Your task to perform on an android device: Do I have any events this weekend? Image 0: 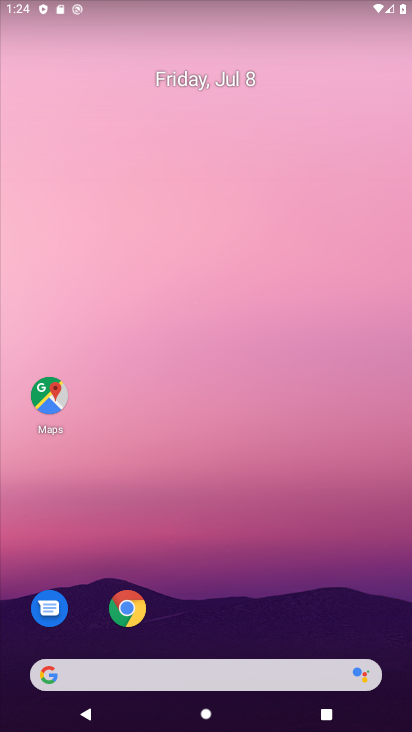
Step 0: click (39, 392)
Your task to perform on an android device: Do I have any events this weekend? Image 1: 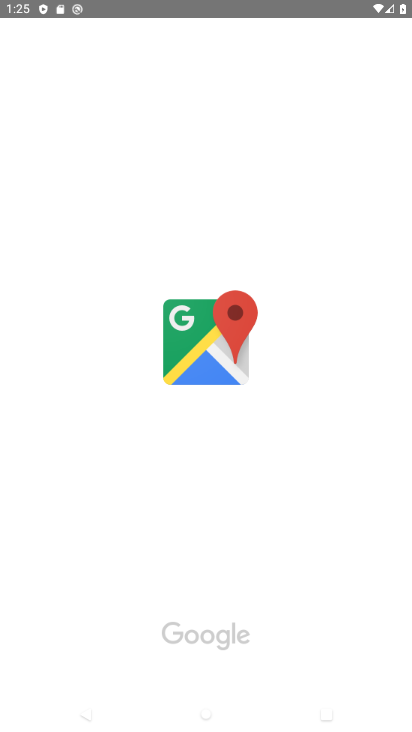
Step 1: press home button
Your task to perform on an android device: Do I have any events this weekend? Image 2: 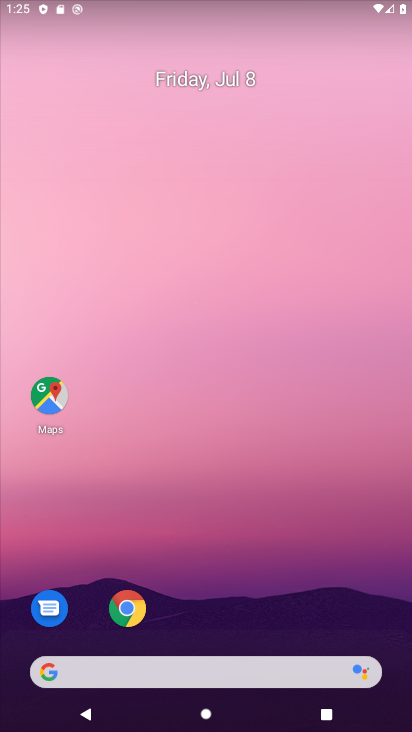
Step 2: click (212, 82)
Your task to perform on an android device: Do I have any events this weekend? Image 3: 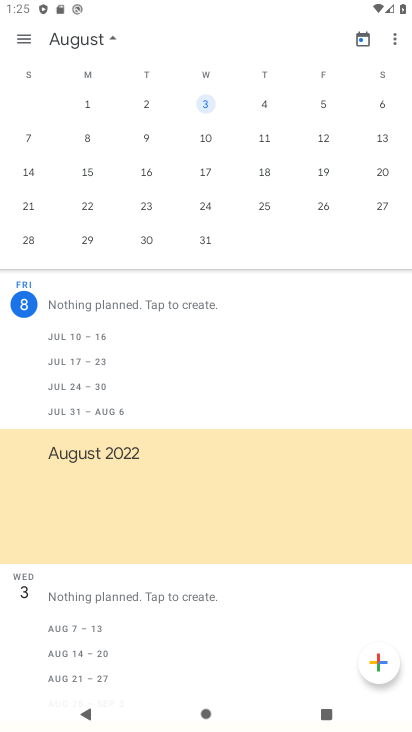
Step 3: drag from (23, 156) to (334, 228)
Your task to perform on an android device: Do I have any events this weekend? Image 4: 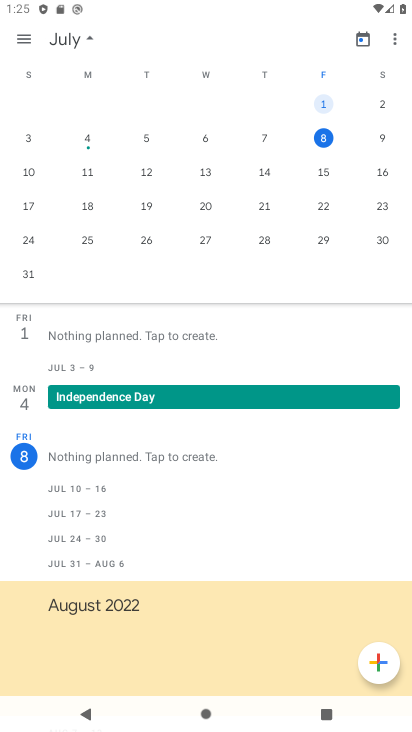
Step 4: click (385, 138)
Your task to perform on an android device: Do I have any events this weekend? Image 5: 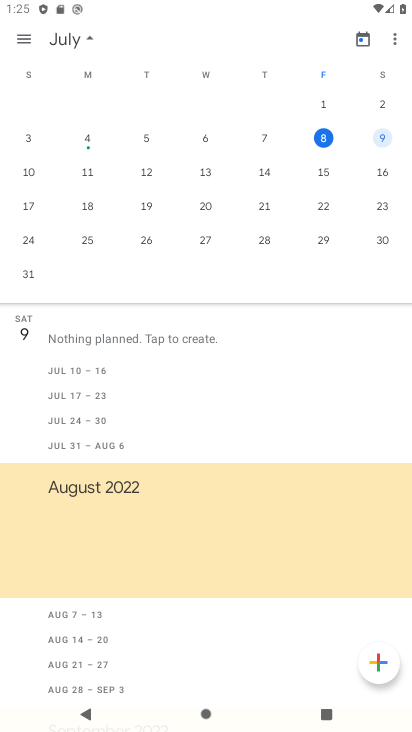
Step 5: task complete